Your task to perform on an android device: What is the recent news? Image 0: 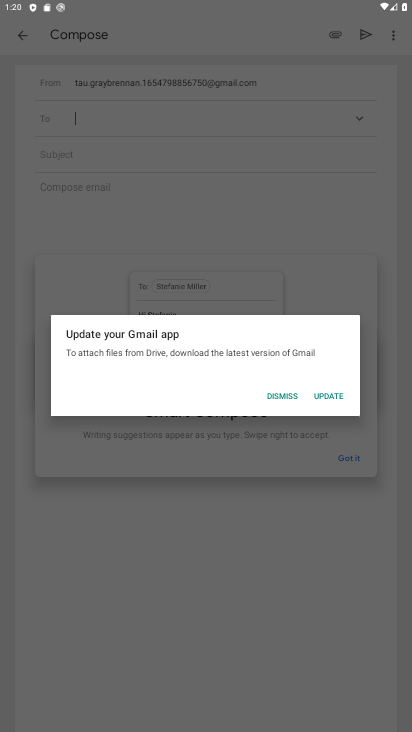
Step 0: press home button
Your task to perform on an android device: What is the recent news? Image 1: 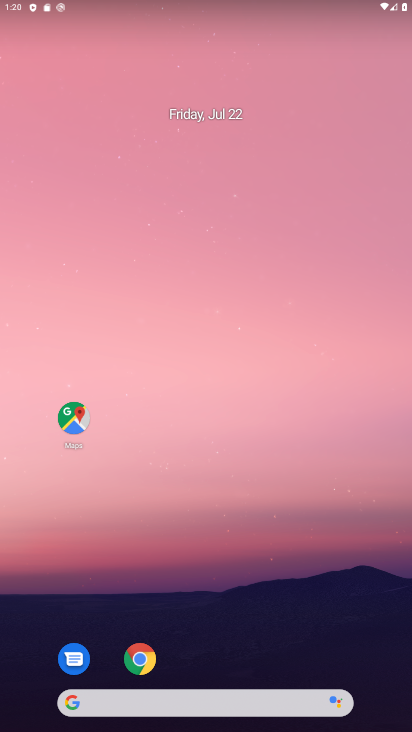
Step 1: click (185, 697)
Your task to perform on an android device: What is the recent news? Image 2: 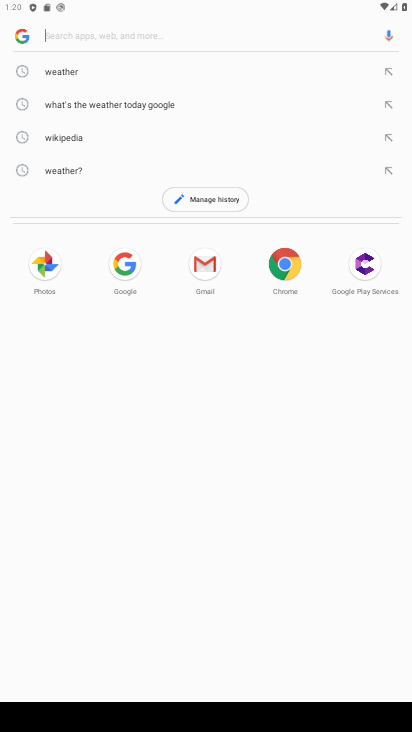
Step 2: type "what is the recent news"
Your task to perform on an android device: What is the recent news? Image 3: 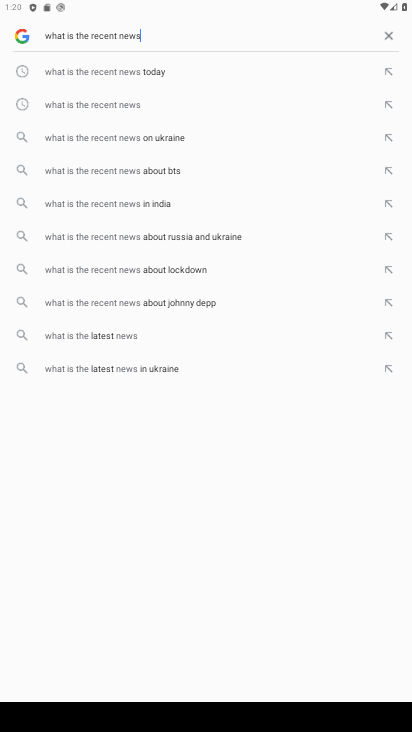
Step 3: click (145, 98)
Your task to perform on an android device: What is the recent news? Image 4: 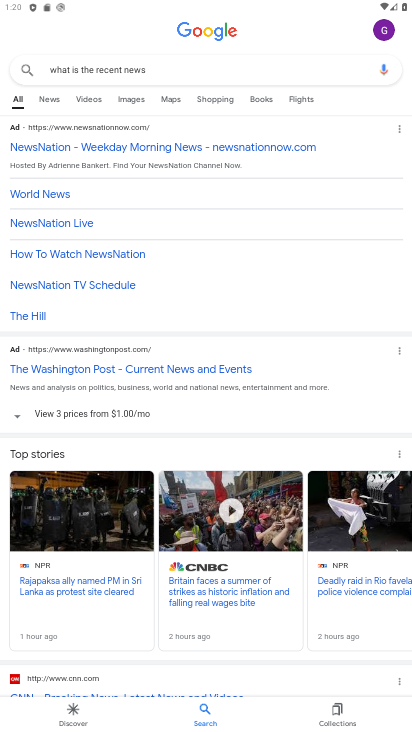
Step 4: task complete